Your task to perform on an android device: open a bookmark in the chrome app Image 0: 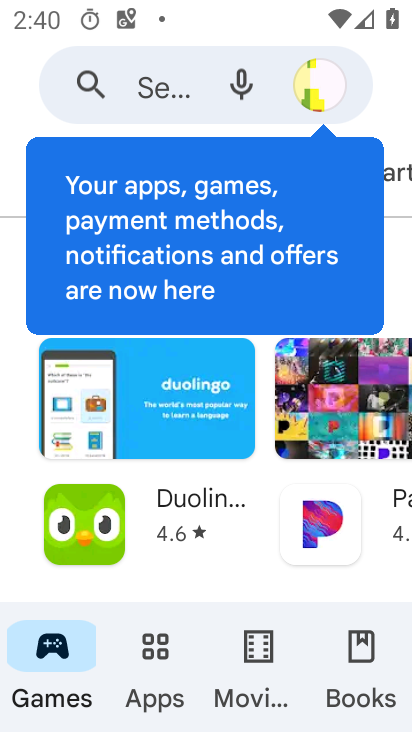
Step 0: press home button
Your task to perform on an android device: open a bookmark in the chrome app Image 1: 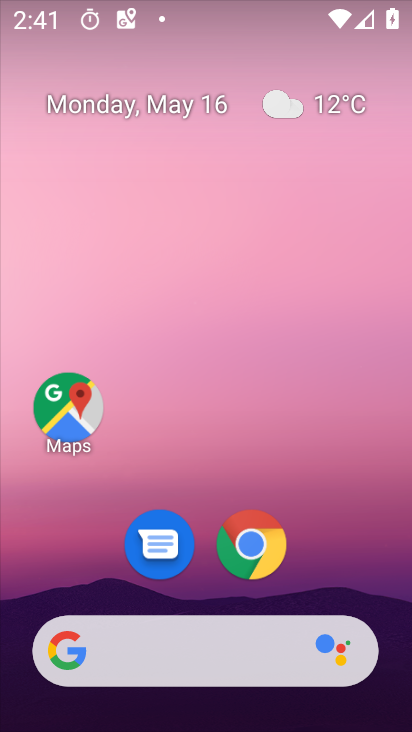
Step 1: click (246, 545)
Your task to perform on an android device: open a bookmark in the chrome app Image 2: 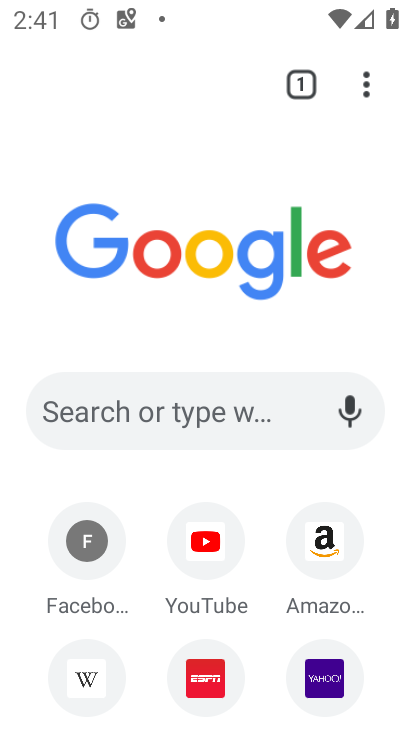
Step 2: click (366, 94)
Your task to perform on an android device: open a bookmark in the chrome app Image 3: 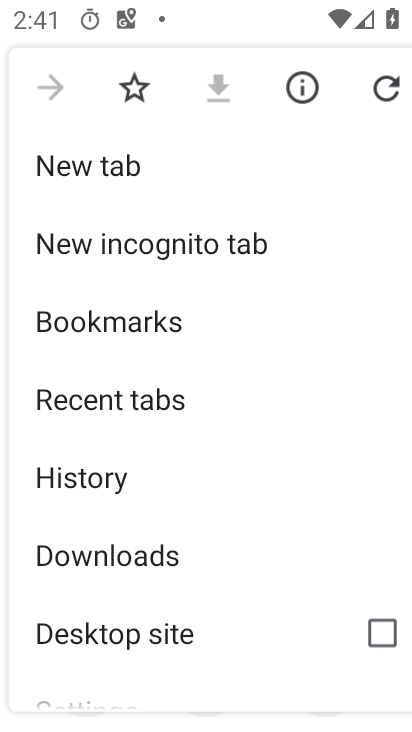
Step 3: click (118, 316)
Your task to perform on an android device: open a bookmark in the chrome app Image 4: 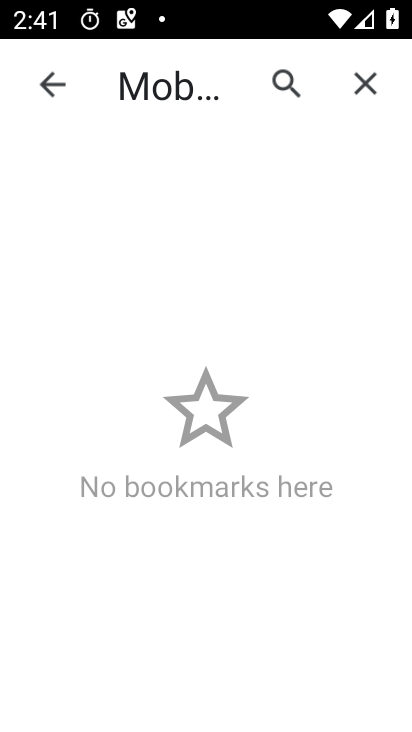
Step 4: task complete